Your task to perform on an android device: snooze an email in the gmail app Image 0: 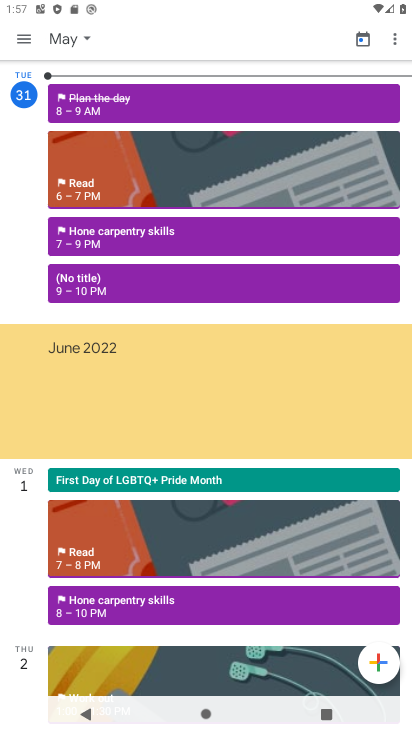
Step 0: press home button
Your task to perform on an android device: snooze an email in the gmail app Image 1: 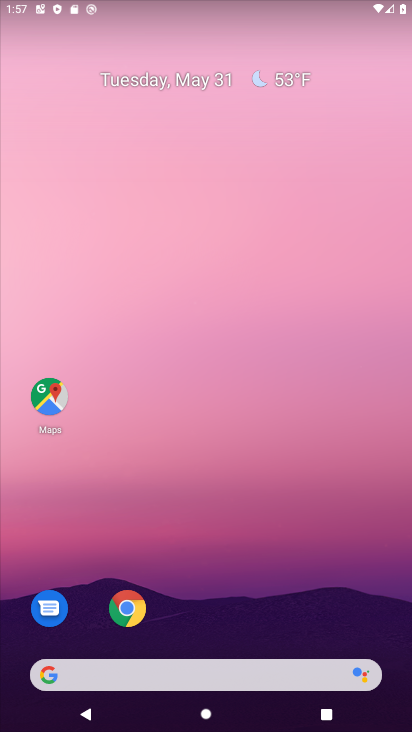
Step 1: drag from (317, 526) to (267, 106)
Your task to perform on an android device: snooze an email in the gmail app Image 2: 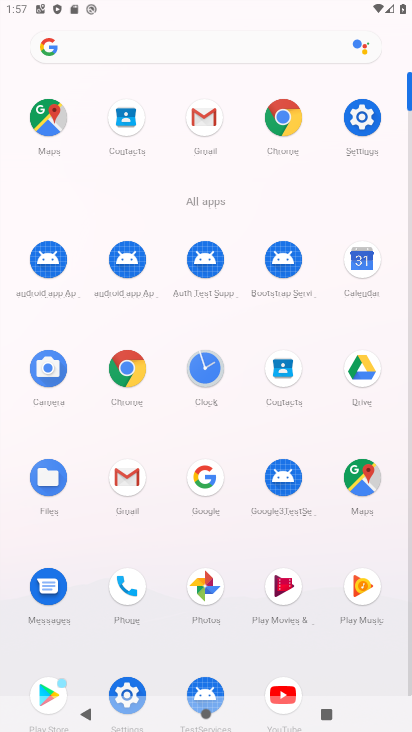
Step 2: click (213, 108)
Your task to perform on an android device: snooze an email in the gmail app Image 3: 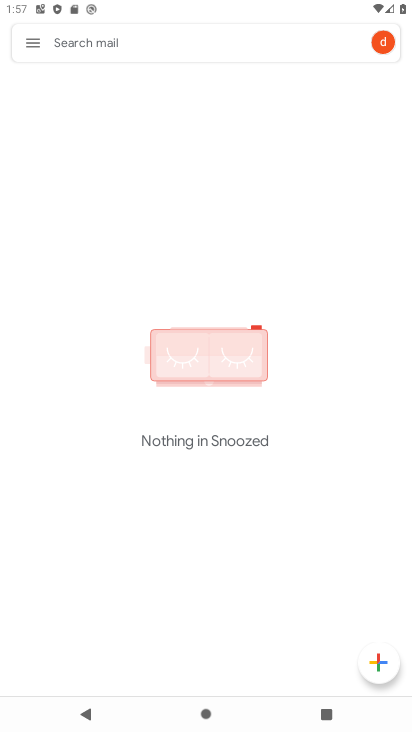
Step 3: click (36, 49)
Your task to perform on an android device: snooze an email in the gmail app Image 4: 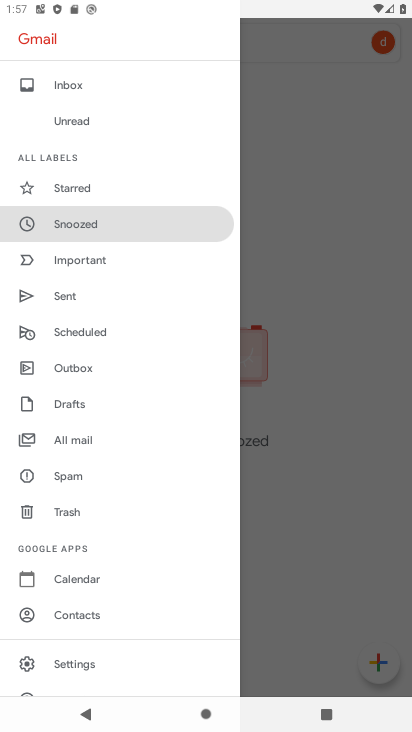
Step 4: click (84, 222)
Your task to perform on an android device: snooze an email in the gmail app Image 5: 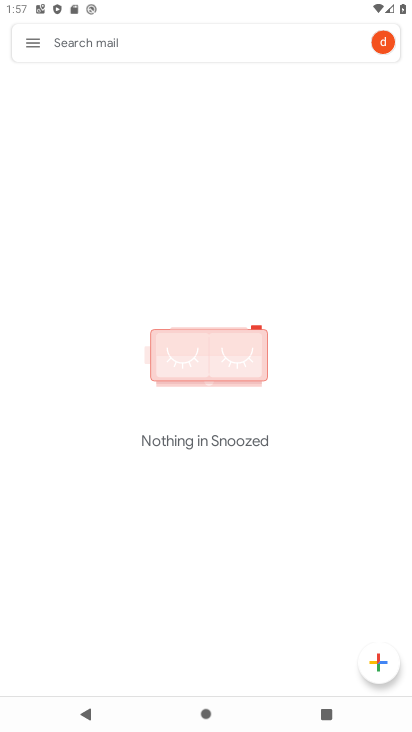
Step 5: task complete